Your task to perform on an android device: open a new tab in the chrome app Image 0: 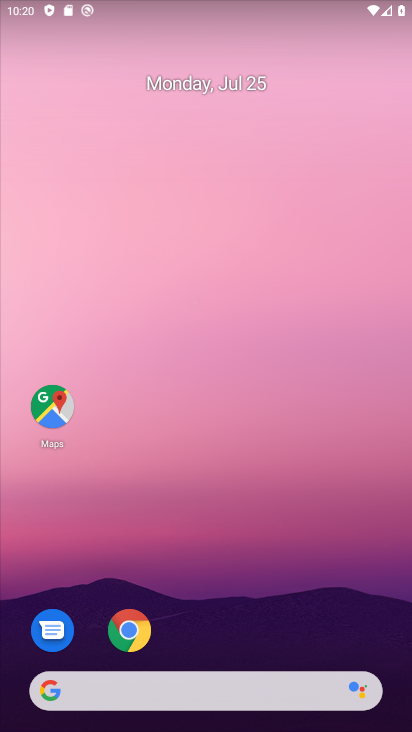
Step 0: click (135, 627)
Your task to perform on an android device: open a new tab in the chrome app Image 1: 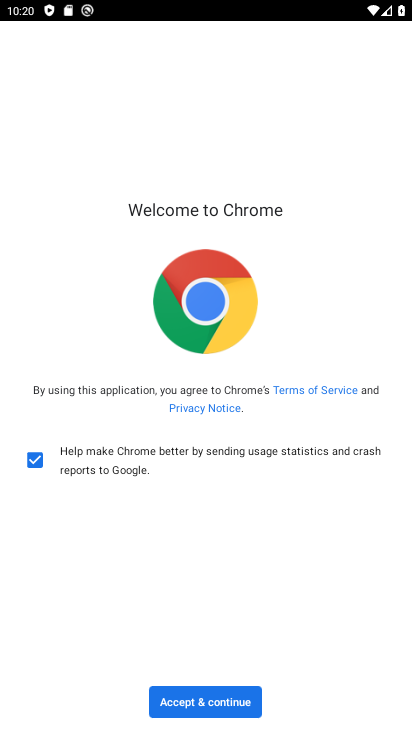
Step 1: click (226, 696)
Your task to perform on an android device: open a new tab in the chrome app Image 2: 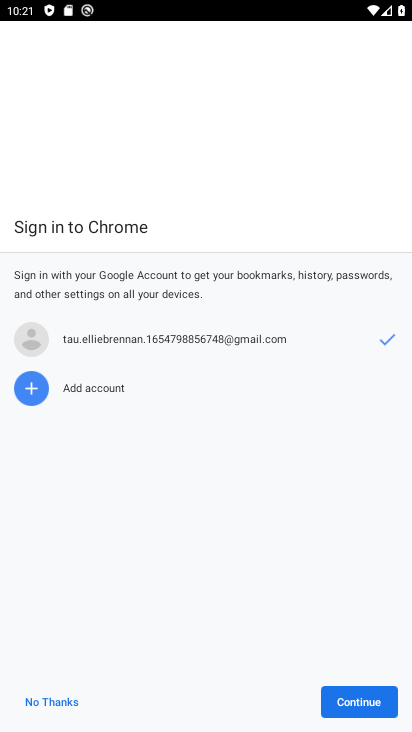
Step 2: click (339, 703)
Your task to perform on an android device: open a new tab in the chrome app Image 3: 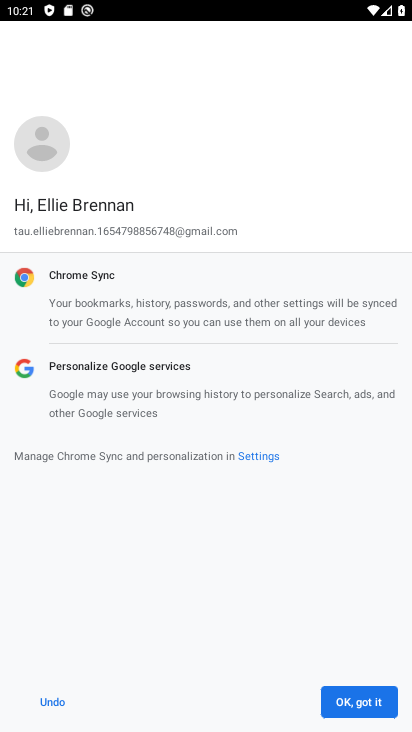
Step 3: click (359, 701)
Your task to perform on an android device: open a new tab in the chrome app Image 4: 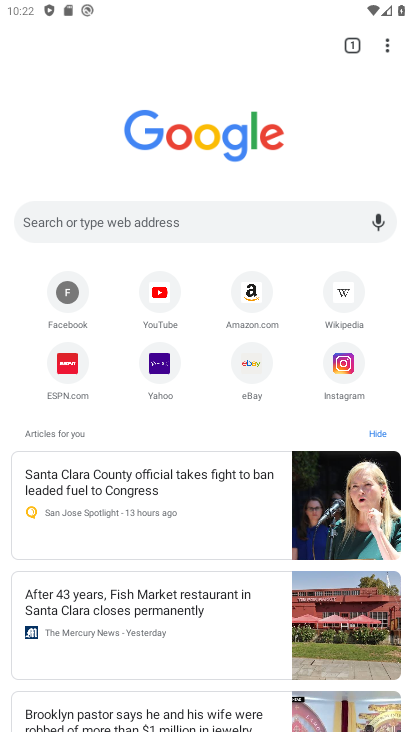
Step 4: task complete